Your task to perform on an android device: all mails in gmail Image 0: 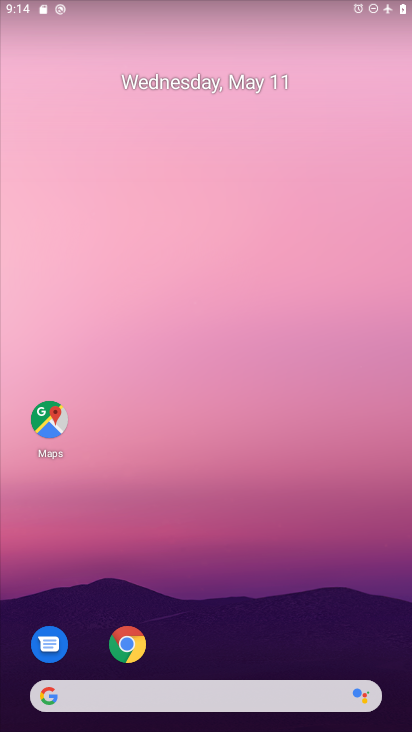
Step 0: drag from (218, 621) to (62, 187)
Your task to perform on an android device: all mails in gmail Image 1: 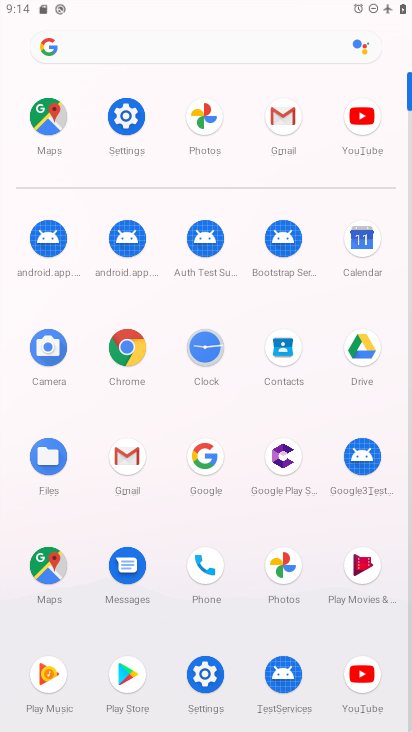
Step 1: click (118, 460)
Your task to perform on an android device: all mails in gmail Image 2: 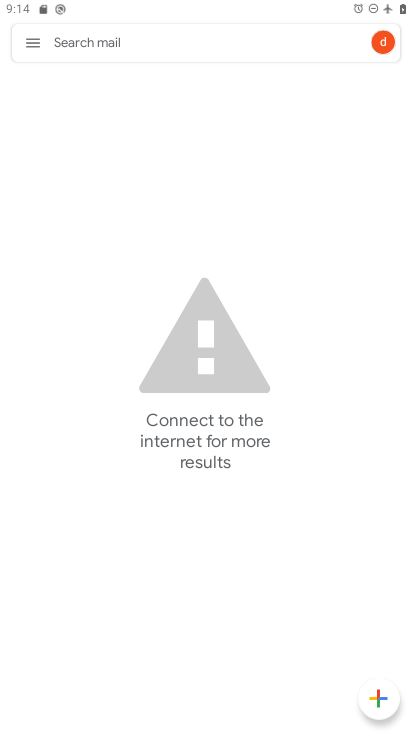
Step 2: click (29, 46)
Your task to perform on an android device: all mails in gmail Image 3: 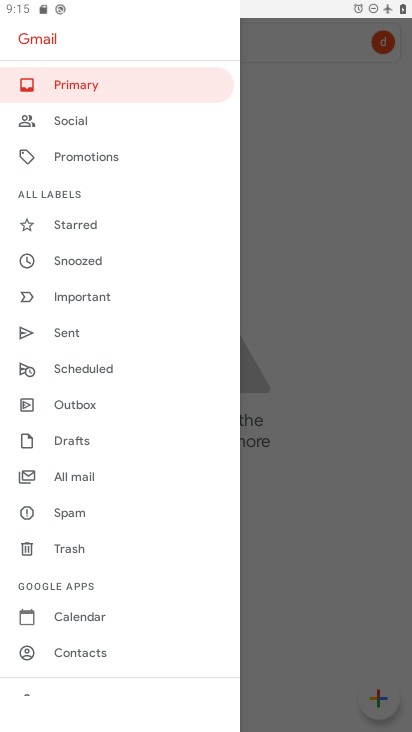
Step 3: click (82, 469)
Your task to perform on an android device: all mails in gmail Image 4: 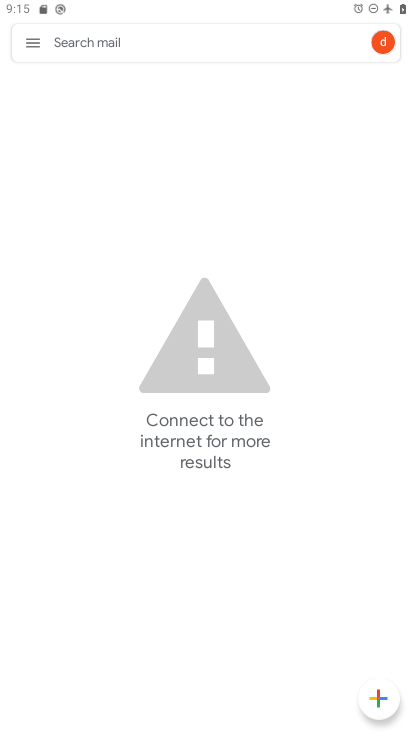
Step 4: task complete